Your task to perform on an android device: Open location settings Image 0: 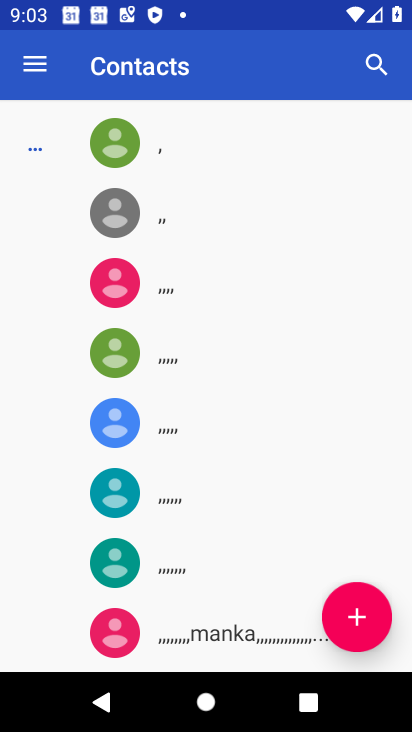
Step 0: press home button
Your task to perform on an android device: Open location settings Image 1: 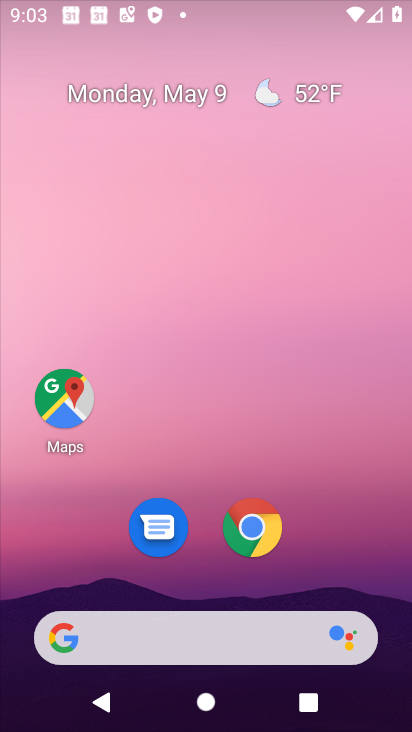
Step 1: drag from (203, 577) to (217, 63)
Your task to perform on an android device: Open location settings Image 2: 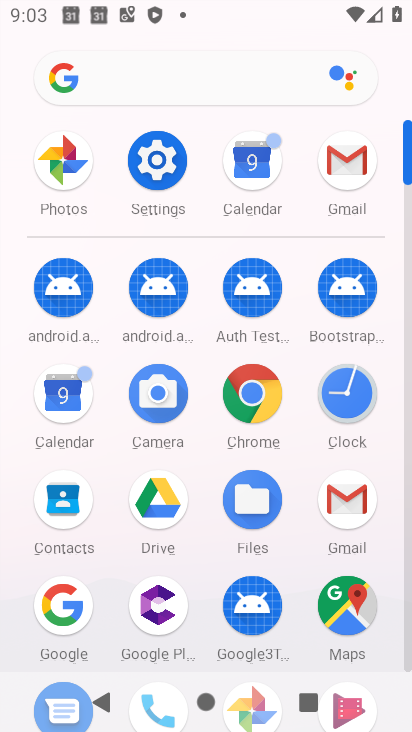
Step 2: click (157, 180)
Your task to perform on an android device: Open location settings Image 3: 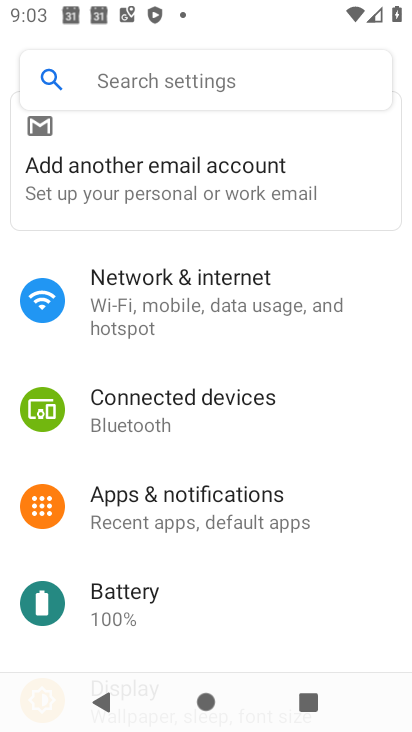
Step 3: drag from (205, 608) to (284, 42)
Your task to perform on an android device: Open location settings Image 4: 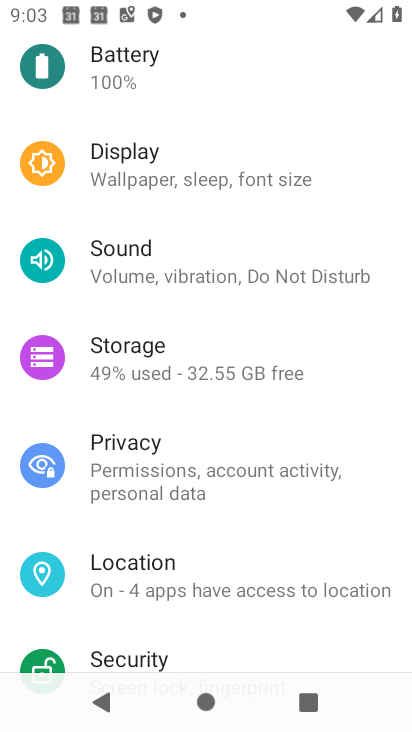
Step 4: click (157, 579)
Your task to perform on an android device: Open location settings Image 5: 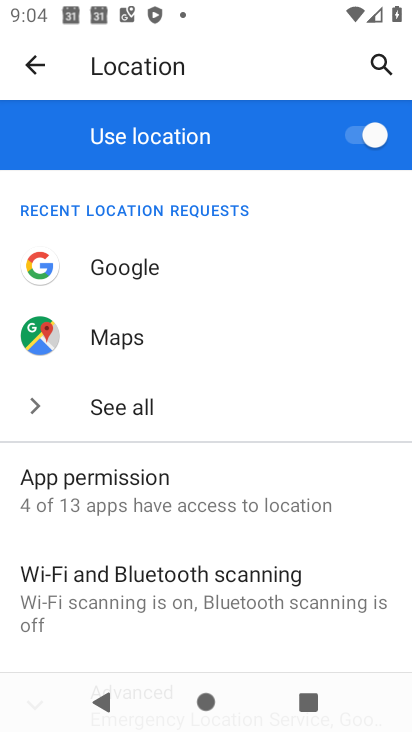
Step 5: task complete